Your task to perform on an android device: check android version Image 0: 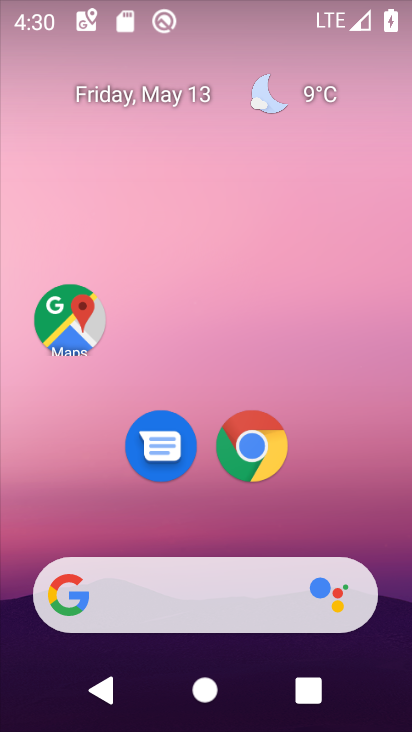
Step 0: drag from (207, 536) to (194, 13)
Your task to perform on an android device: check android version Image 1: 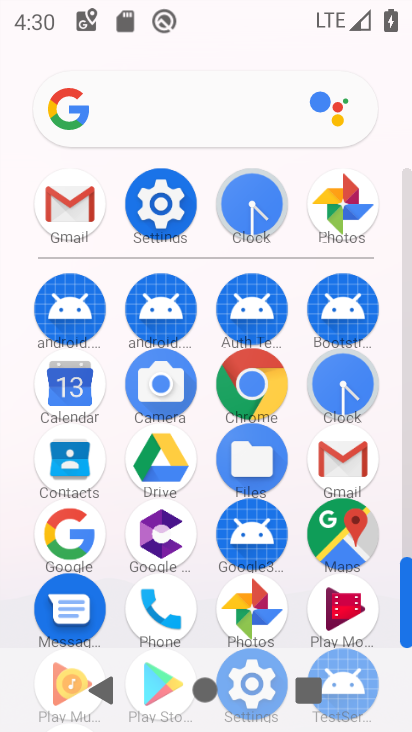
Step 1: click (149, 214)
Your task to perform on an android device: check android version Image 2: 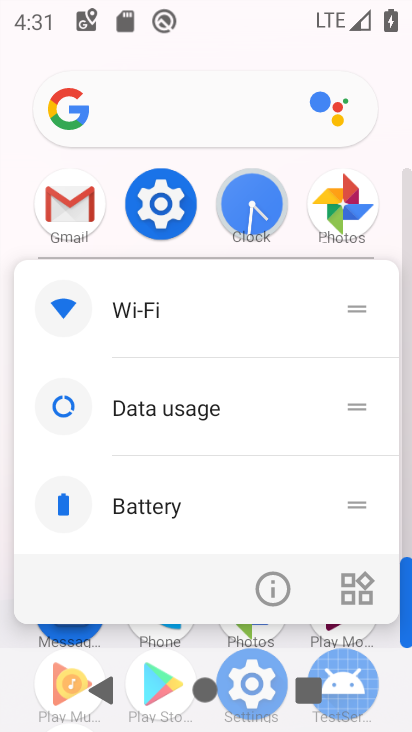
Step 2: click (164, 212)
Your task to perform on an android device: check android version Image 3: 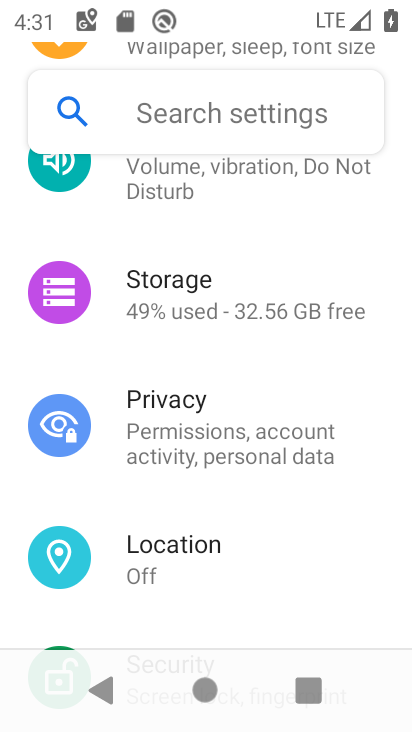
Step 3: drag from (160, 546) to (166, 271)
Your task to perform on an android device: check android version Image 4: 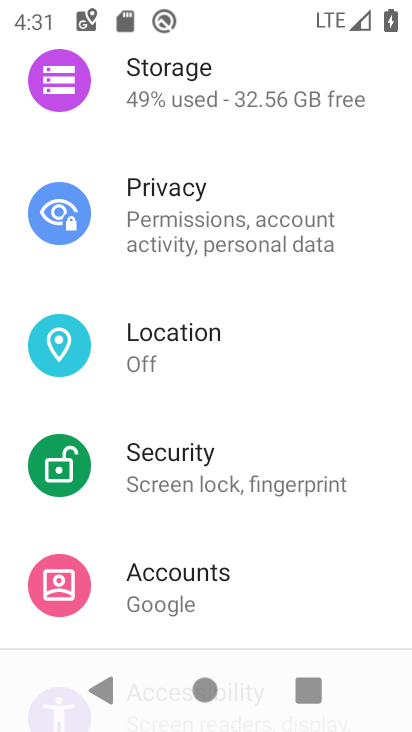
Step 4: drag from (240, 596) to (262, 300)
Your task to perform on an android device: check android version Image 5: 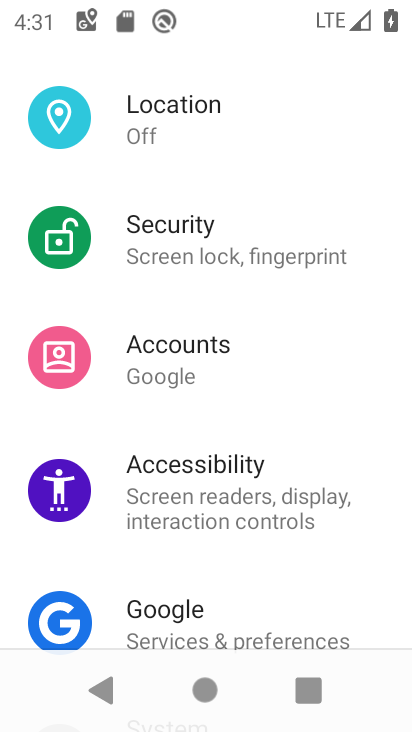
Step 5: drag from (224, 517) to (223, 217)
Your task to perform on an android device: check android version Image 6: 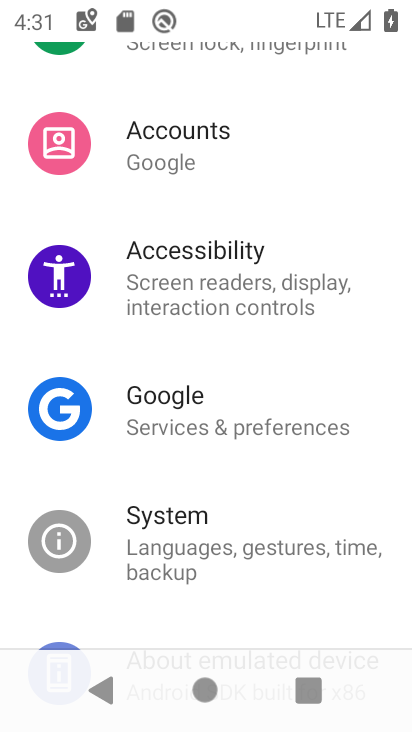
Step 6: drag from (226, 558) to (200, 239)
Your task to perform on an android device: check android version Image 7: 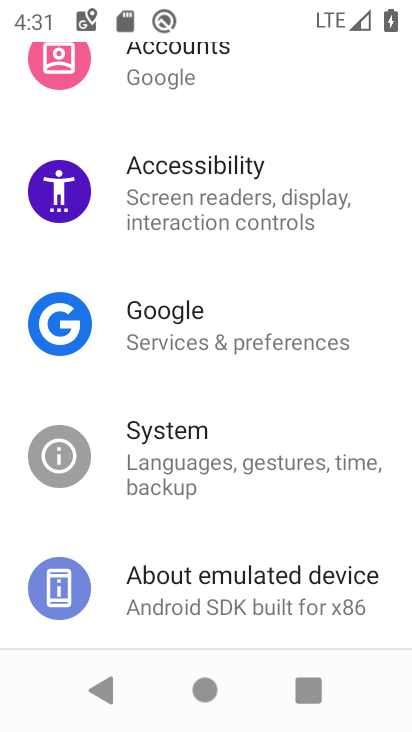
Step 7: click (187, 585)
Your task to perform on an android device: check android version Image 8: 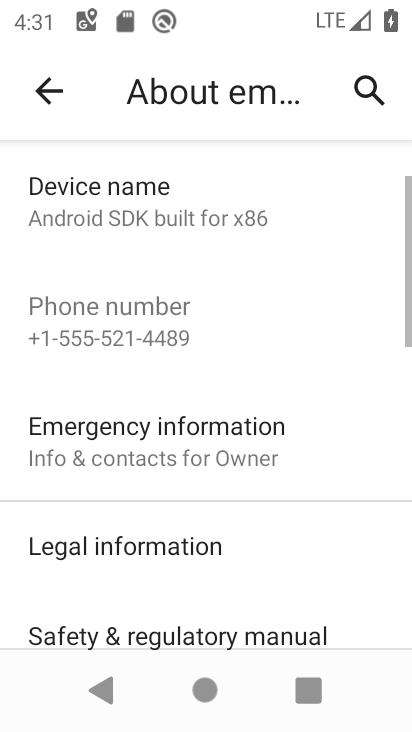
Step 8: drag from (253, 626) to (238, 347)
Your task to perform on an android device: check android version Image 9: 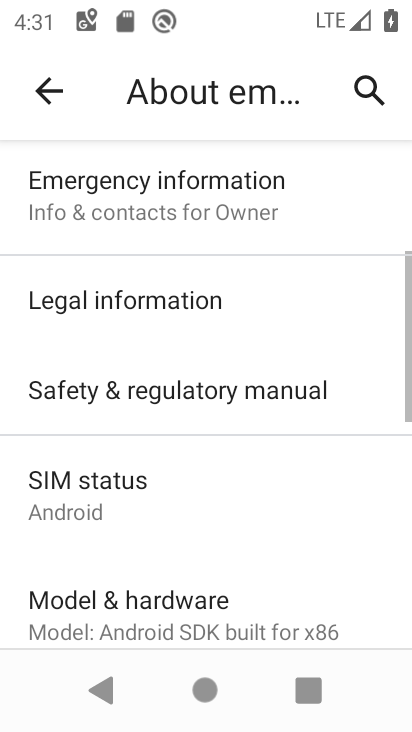
Step 9: drag from (253, 632) to (267, 317)
Your task to perform on an android device: check android version Image 10: 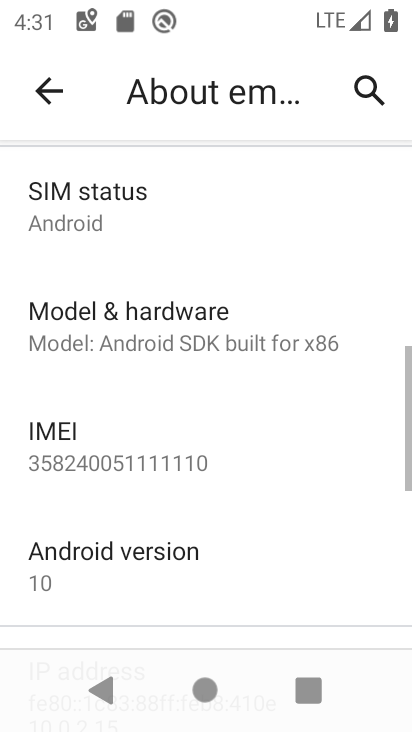
Step 10: drag from (202, 554) to (198, 343)
Your task to perform on an android device: check android version Image 11: 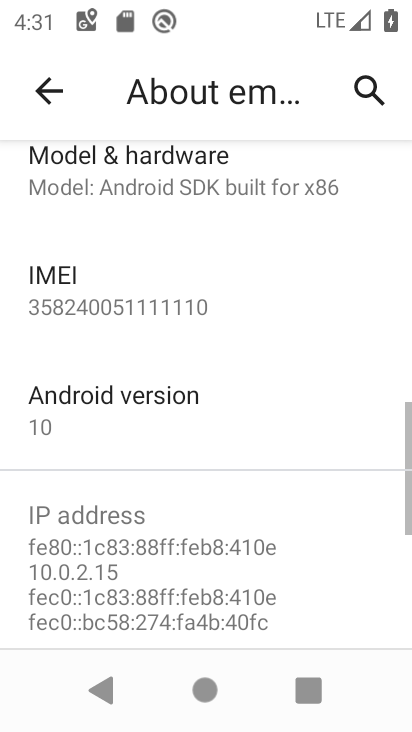
Step 11: click (165, 391)
Your task to perform on an android device: check android version Image 12: 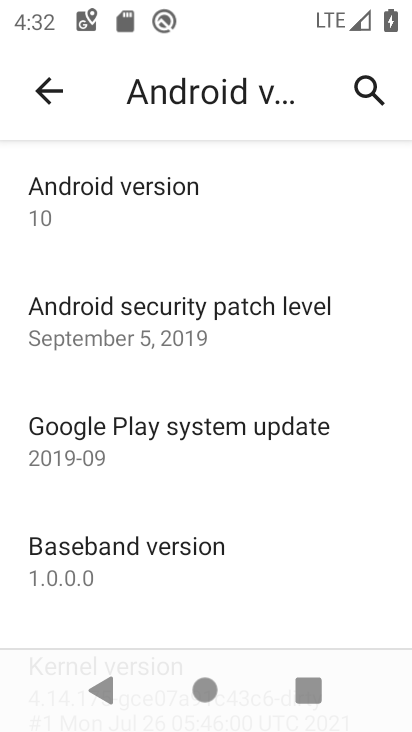
Step 12: click (70, 216)
Your task to perform on an android device: check android version Image 13: 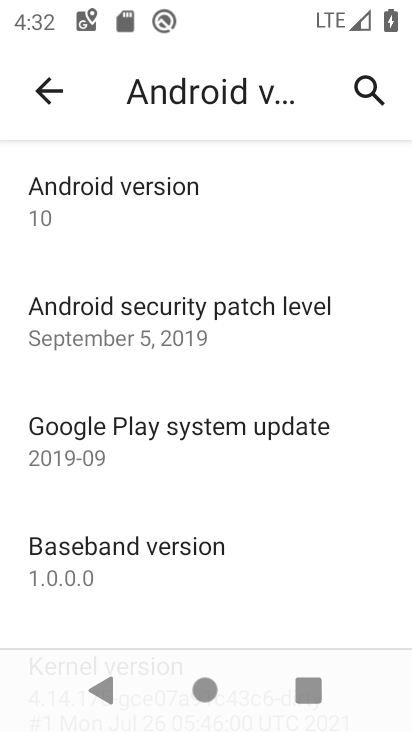
Step 13: task complete